Your task to perform on an android device: turn off wifi Image 0: 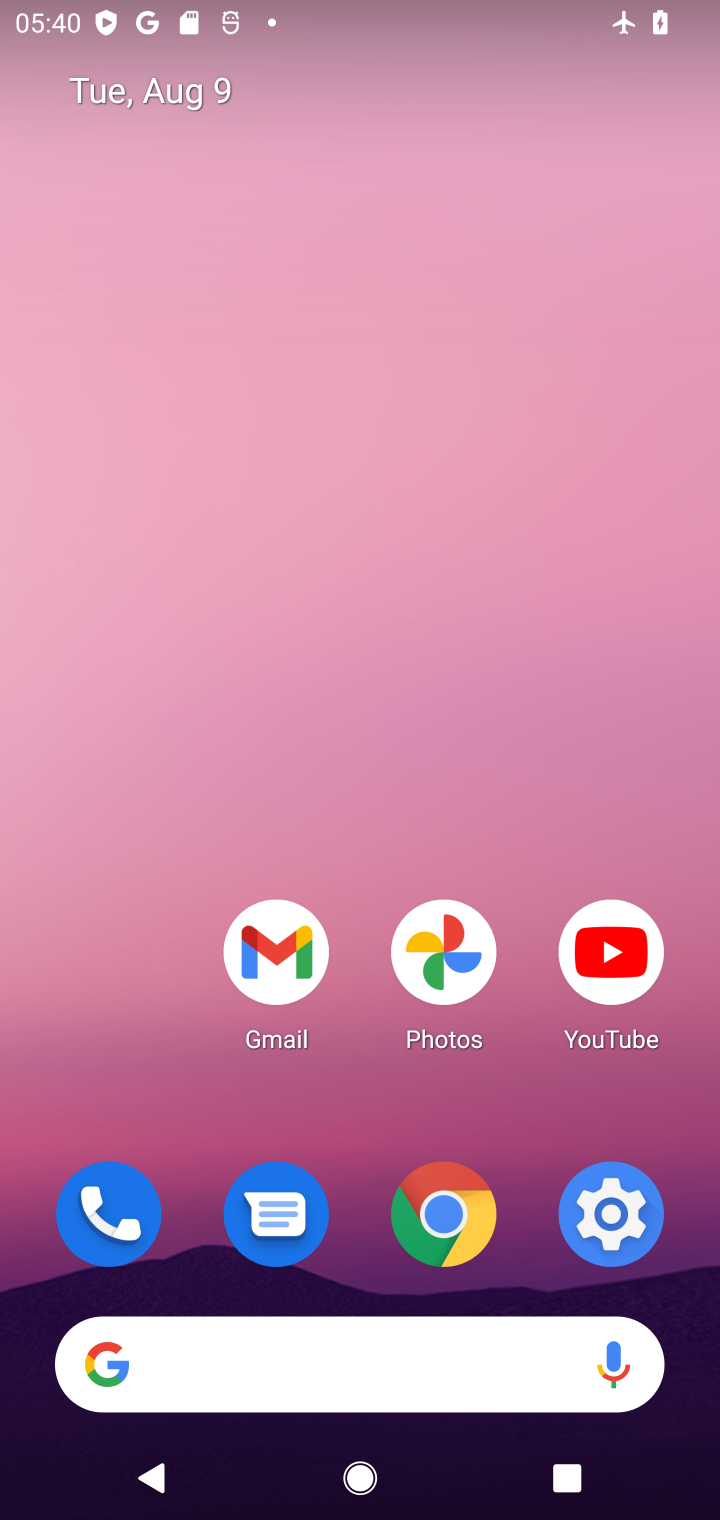
Step 0: press home button
Your task to perform on an android device: turn off wifi Image 1: 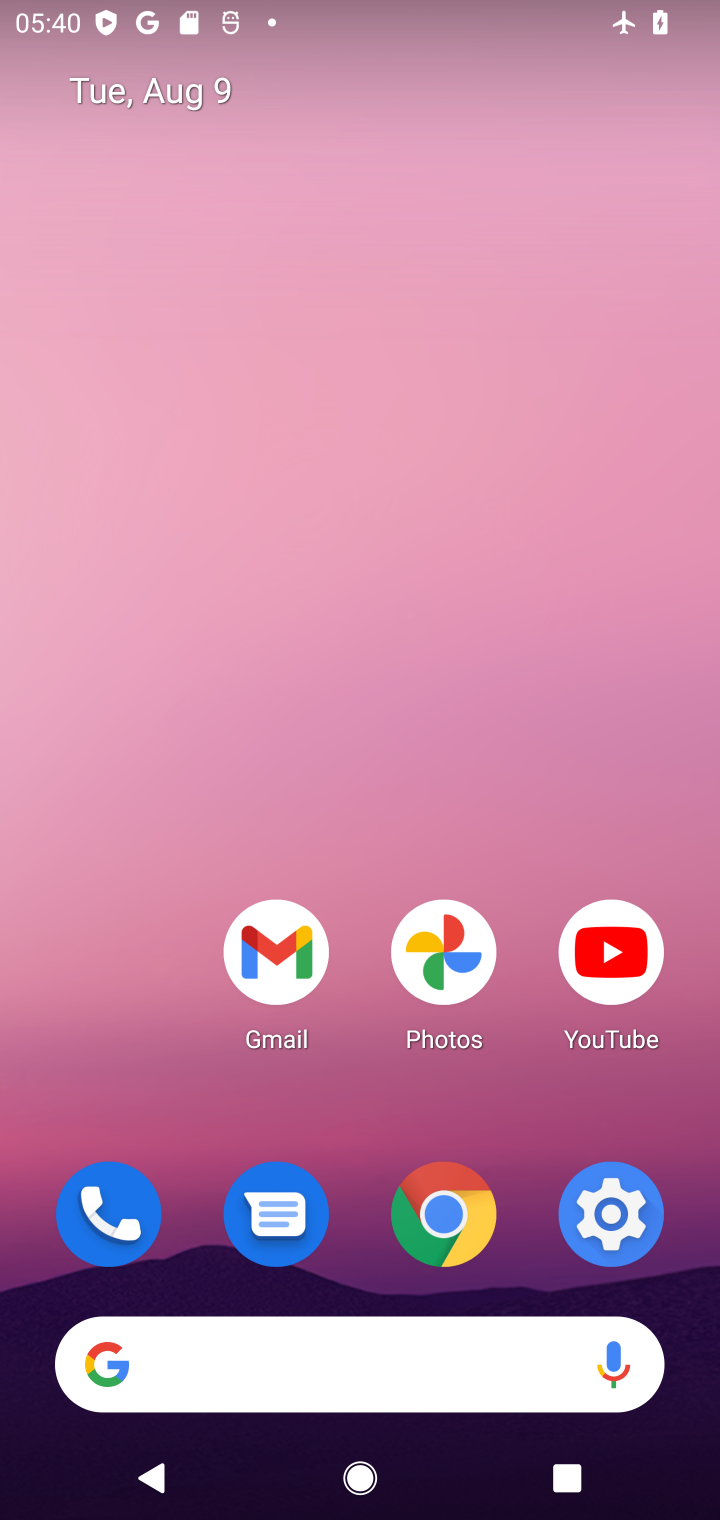
Step 1: drag from (463, 1227) to (480, 399)
Your task to perform on an android device: turn off wifi Image 2: 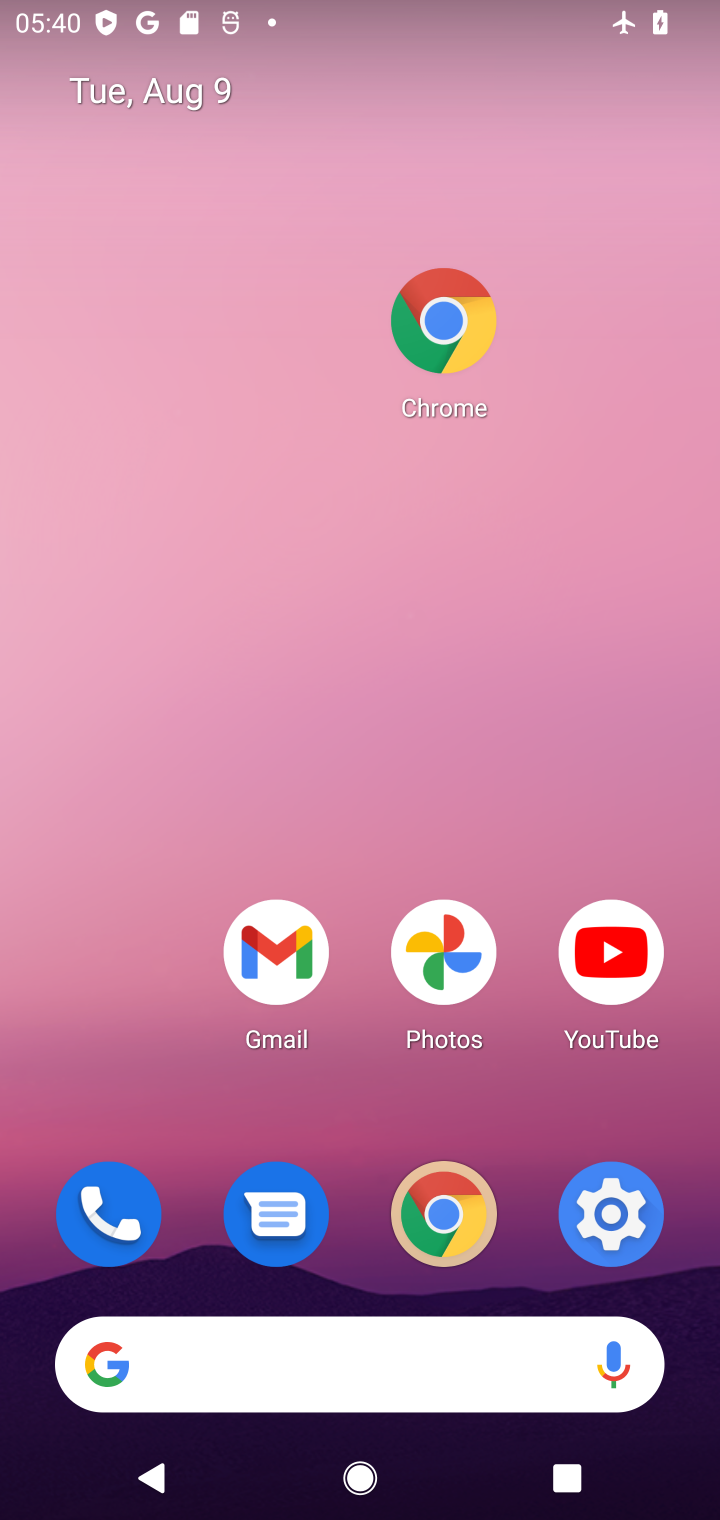
Step 2: click (589, 1191)
Your task to perform on an android device: turn off wifi Image 3: 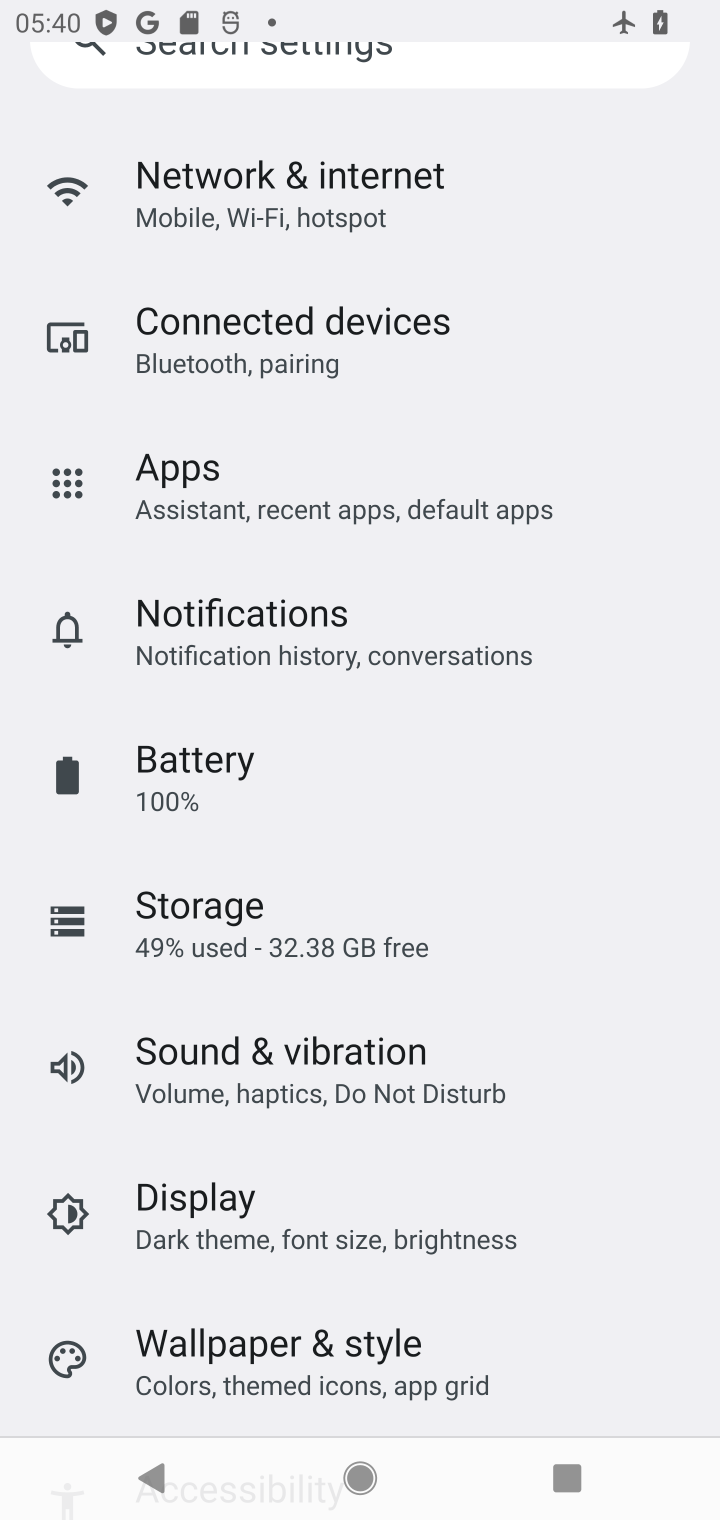
Step 3: click (324, 218)
Your task to perform on an android device: turn off wifi Image 4: 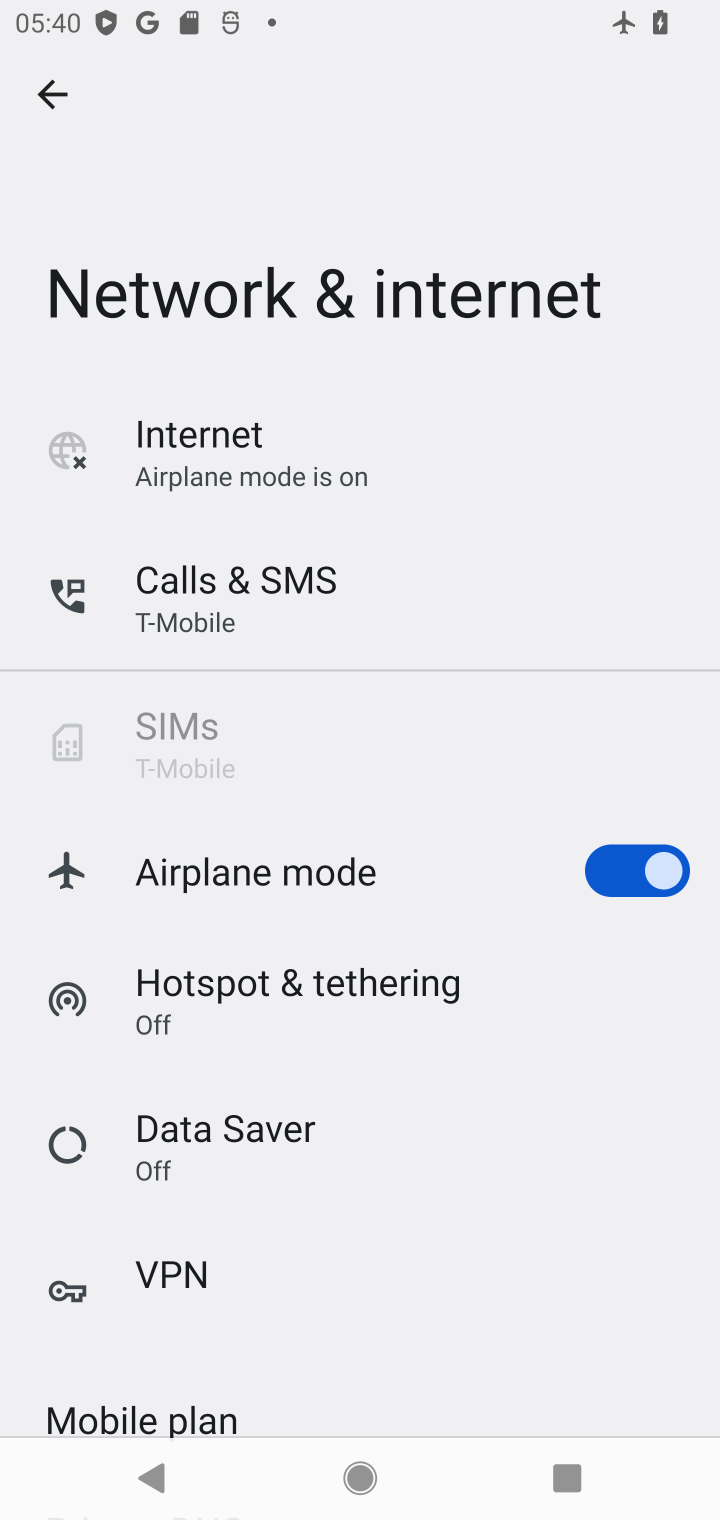
Step 4: click (280, 466)
Your task to perform on an android device: turn off wifi Image 5: 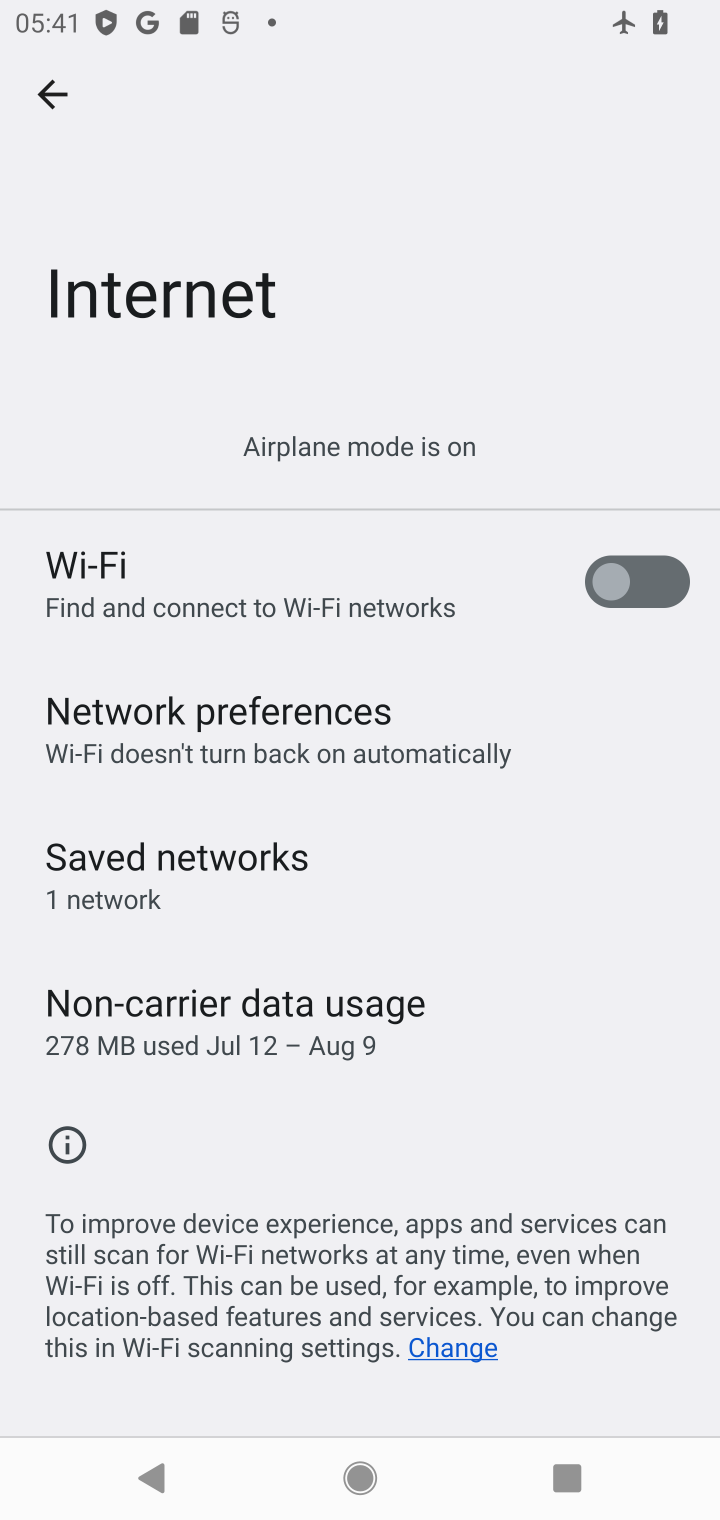
Step 5: task complete